Your task to perform on an android device: Go to calendar. Show me events next week Image 0: 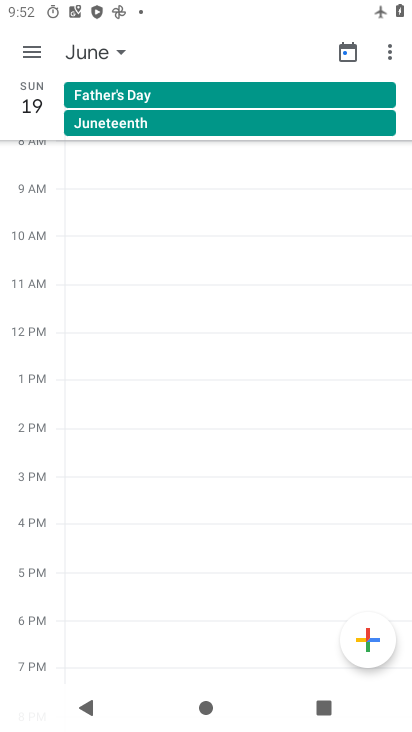
Step 0: press home button
Your task to perform on an android device: Go to calendar. Show me events next week Image 1: 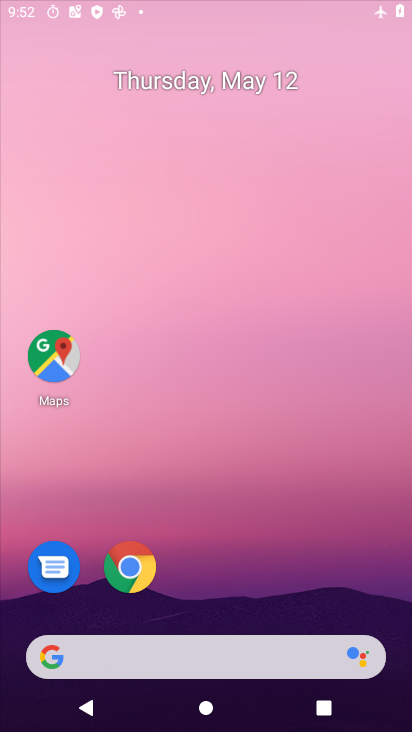
Step 1: drag from (171, 641) to (183, 203)
Your task to perform on an android device: Go to calendar. Show me events next week Image 2: 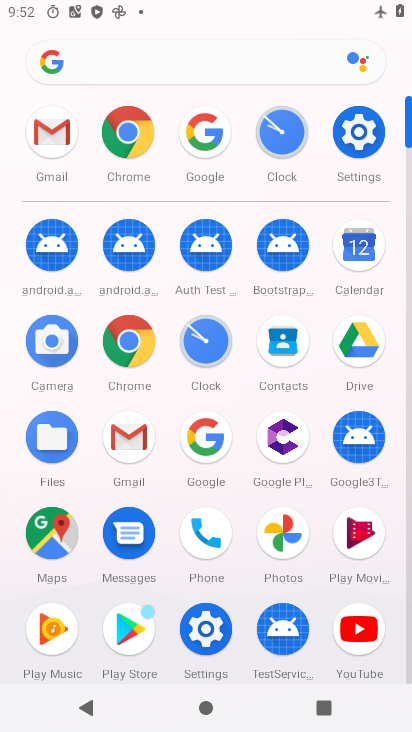
Step 2: click (359, 265)
Your task to perform on an android device: Go to calendar. Show me events next week Image 3: 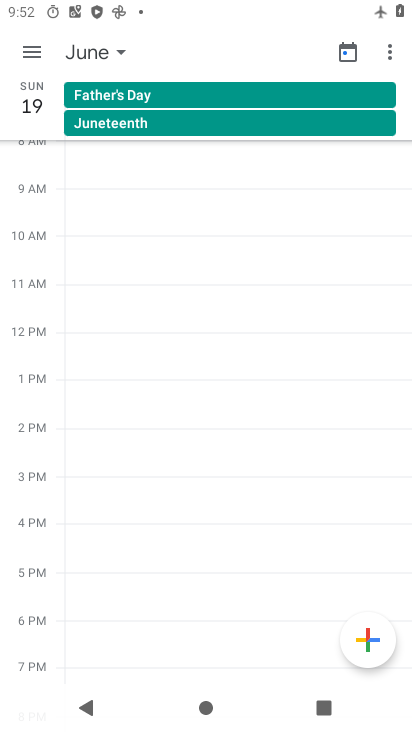
Step 3: click (122, 50)
Your task to perform on an android device: Go to calendar. Show me events next week Image 4: 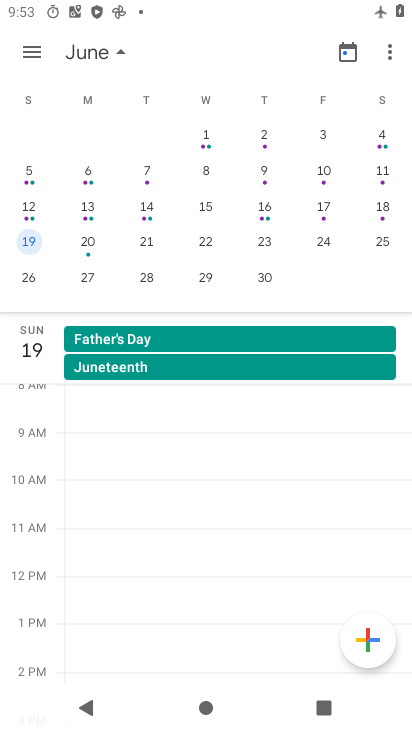
Step 4: drag from (105, 251) to (406, 292)
Your task to perform on an android device: Go to calendar. Show me events next week Image 5: 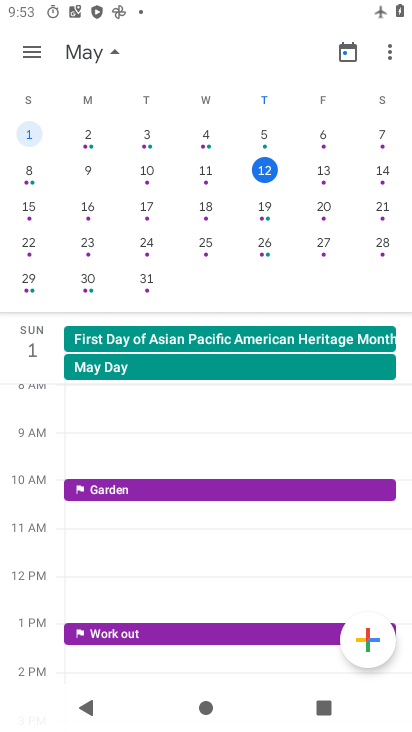
Step 5: click (27, 217)
Your task to perform on an android device: Go to calendar. Show me events next week Image 6: 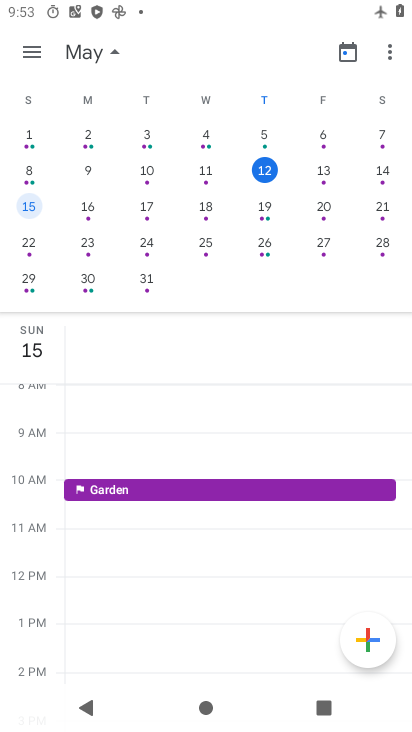
Step 6: task complete